Your task to perform on an android device: search for starred emails in the gmail app Image 0: 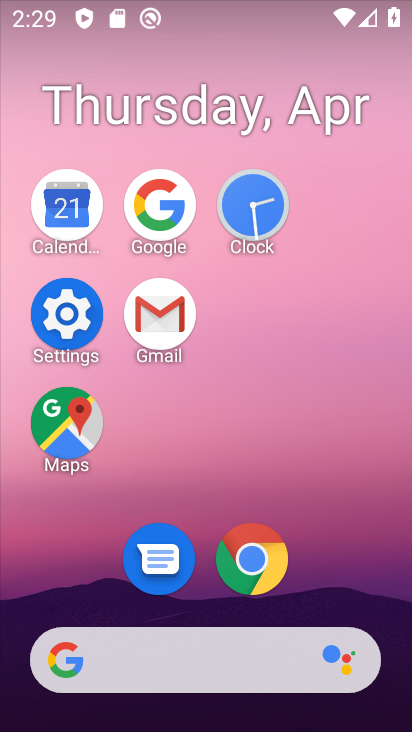
Step 0: click (158, 318)
Your task to perform on an android device: search for starred emails in the gmail app Image 1: 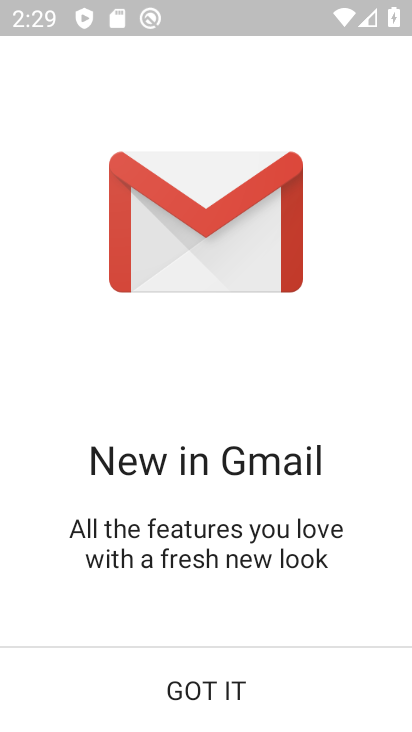
Step 1: click (197, 688)
Your task to perform on an android device: search for starred emails in the gmail app Image 2: 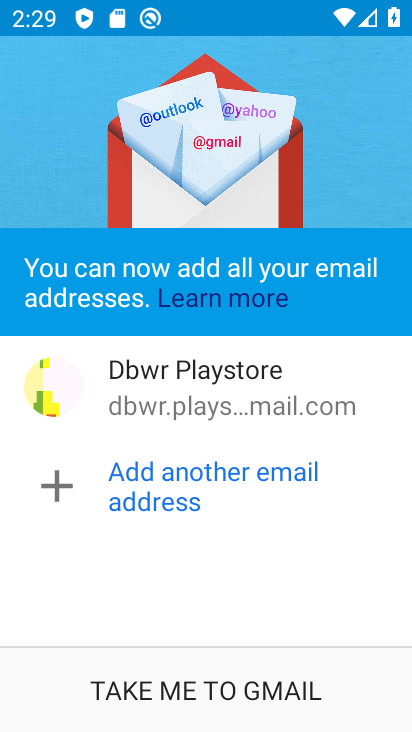
Step 2: click (197, 688)
Your task to perform on an android device: search for starred emails in the gmail app Image 3: 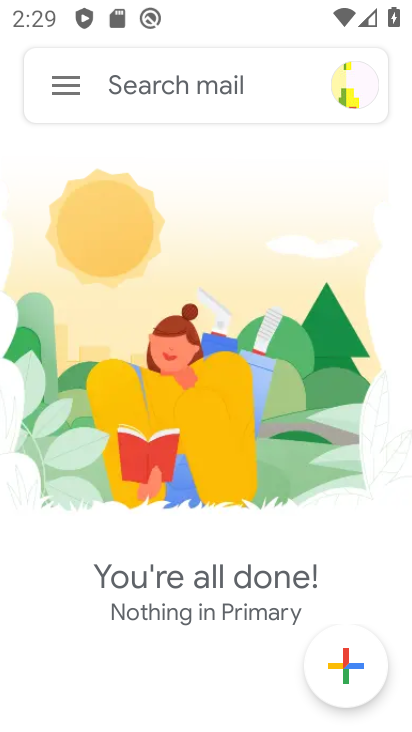
Step 3: click (49, 94)
Your task to perform on an android device: search for starred emails in the gmail app Image 4: 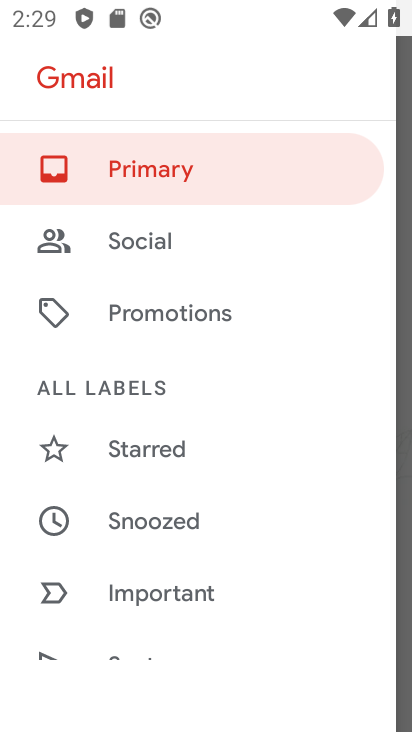
Step 4: drag from (220, 605) to (325, 189)
Your task to perform on an android device: search for starred emails in the gmail app Image 5: 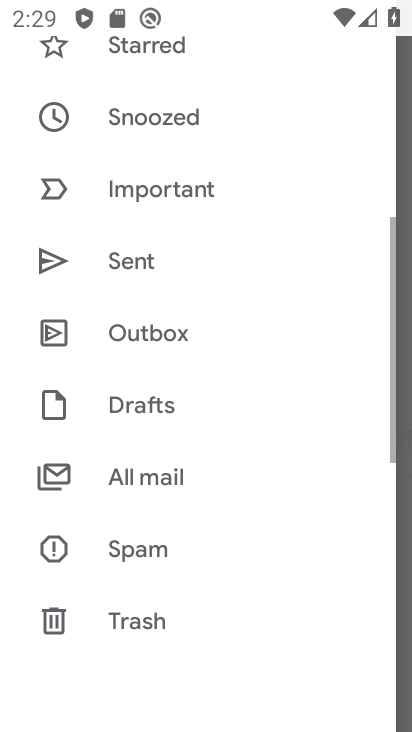
Step 5: click (204, 491)
Your task to perform on an android device: search for starred emails in the gmail app Image 6: 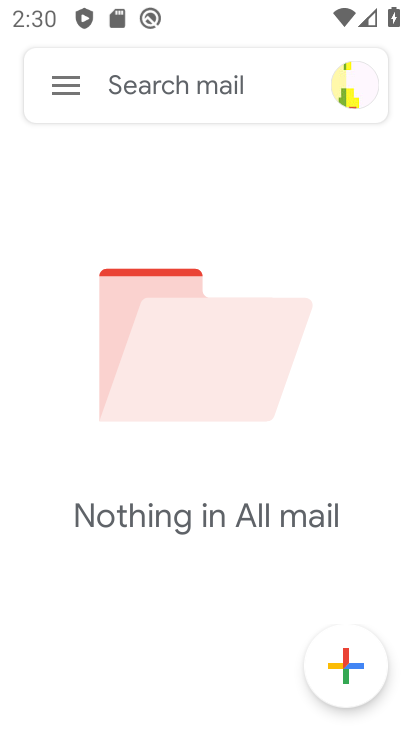
Step 6: task complete